Your task to perform on an android device: Open sound settings Image 0: 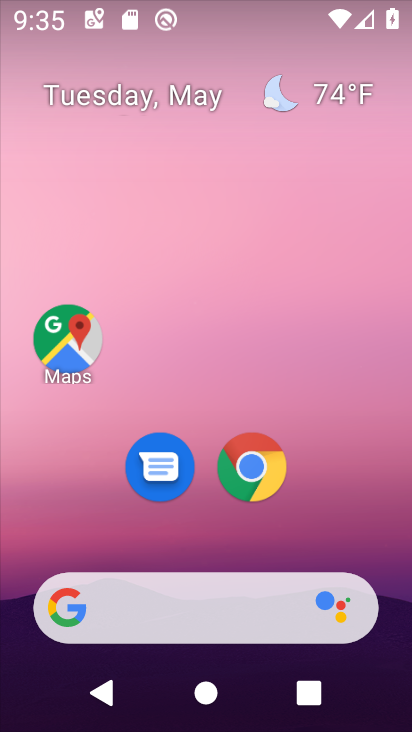
Step 0: drag from (337, 507) to (289, 87)
Your task to perform on an android device: Open sound settings Image 1: 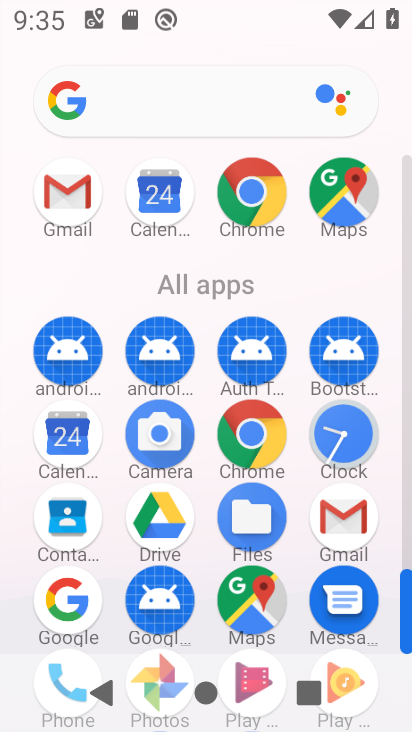
Step 1: drag from (280, 517) to (268, 152)
Your task to perform on an android device: Open sound settings Image 2: 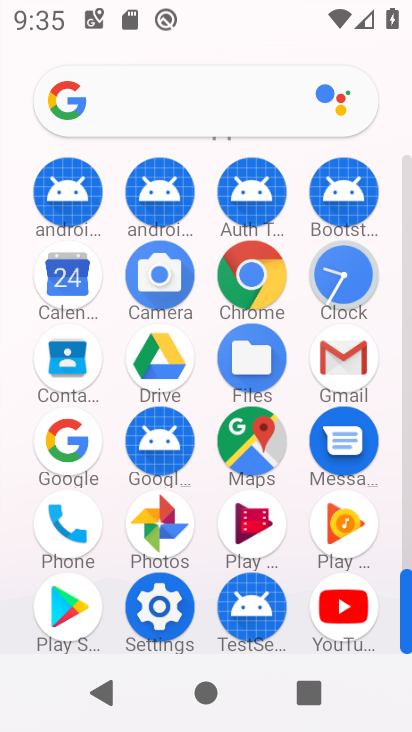
Step 2: click (182, 593)
Your task to perform on an android device: Open sound settings Image 3: 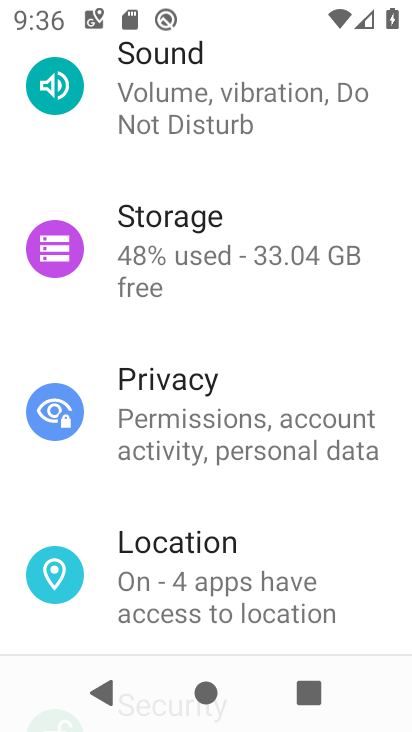
Step 3: click (208, 116)
Your task to perform on an android device: Open sound settings Image 4: 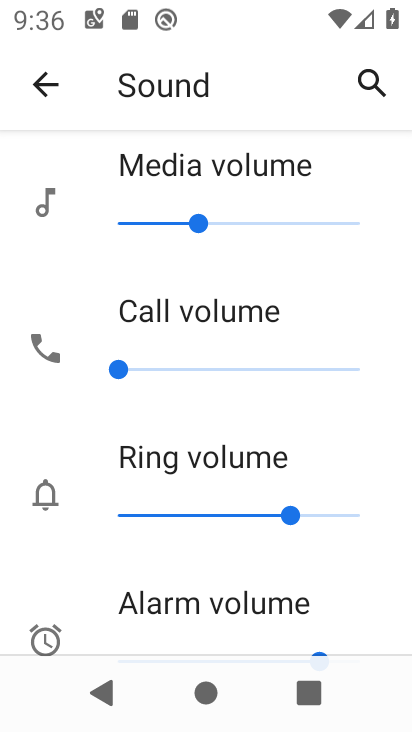
Step 4: task complete